Your task to perform on an android device: Go to Android settings Image 0: 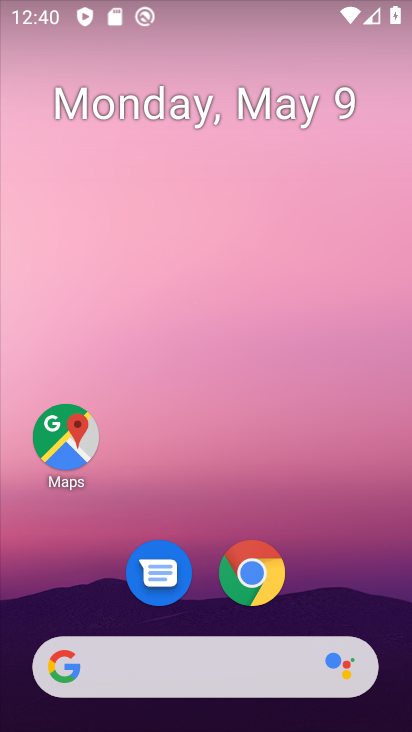
Step 0: drag from (300, 483) to (52, 254)
Your task to perform on an android device: Go to Android settings Image 1: 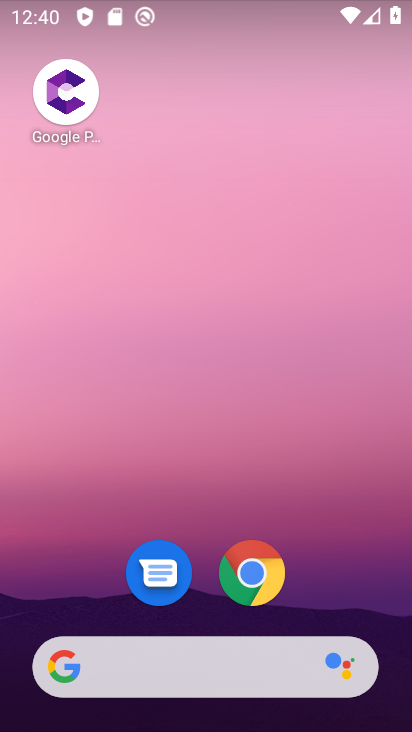
Step 1: drag from (332, 560) to (298, 83)
Your task to perform on an android device: Go to Android settings Image 2: 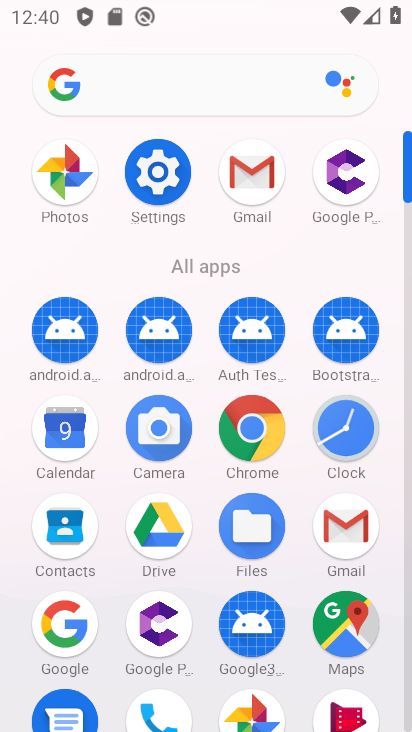
Step 2: click (146, 182)
Your task to perform on an android device: Go to Android settings Image 3: 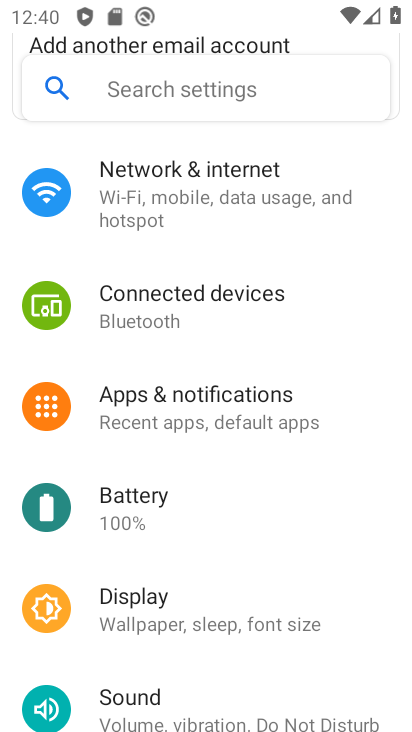
Step 3: drag from (224, 570) to (184, 196)
Your task to perform on an android device: Go to Android settings Image 4: 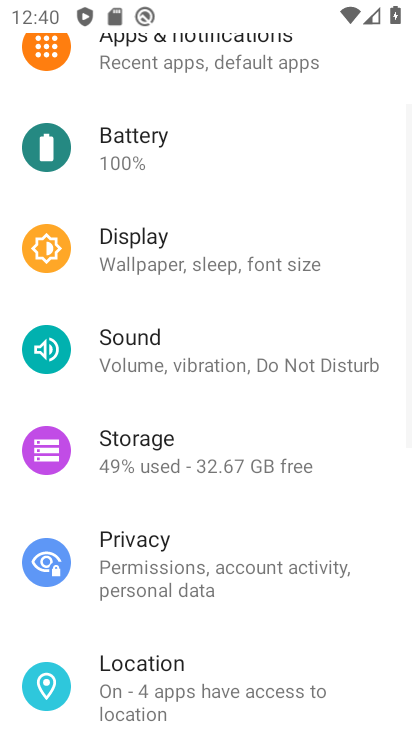
Step 4: drag from (153, 684) to (169, 305)
Your task to perform on an android device: Go to Android settings Image 5: 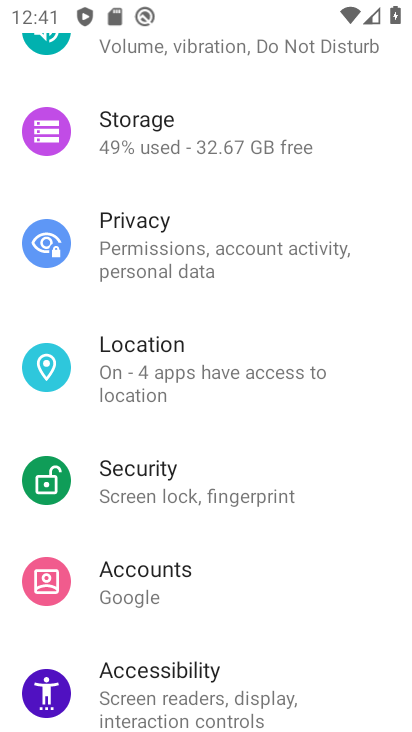
Step 5: drag from (161, 668) to (180, 298)
Your task to perform on an android device: Go to Android settings Image 6: 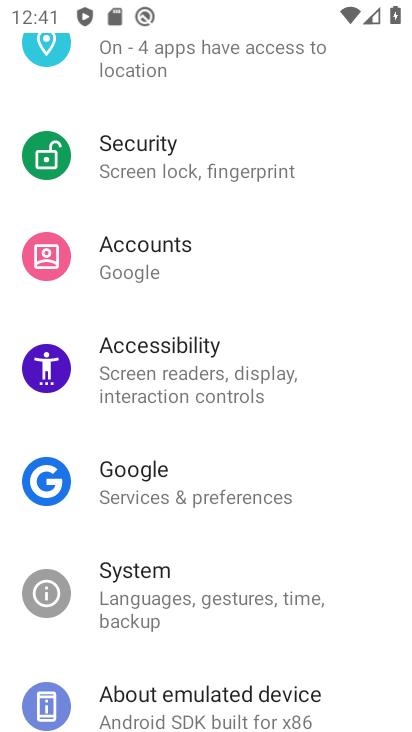
Step 6: click (183, 699)
Your task to perform on an android device: Go to Android settings Image 7: 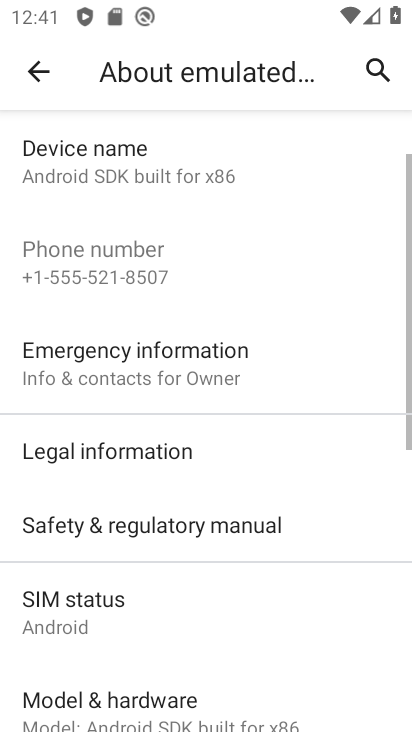
Step 7: drag from (191, 697) to (200, 405)
Your task to perform on an android device: Go to Android settings Image 8: 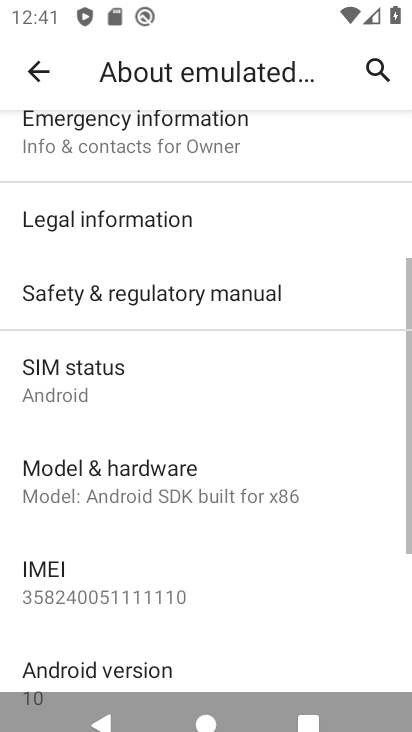
Step 8: drag from (134, 592) to (123, 267)
Your task to perform on an android device: Go to Android settings Image 9: 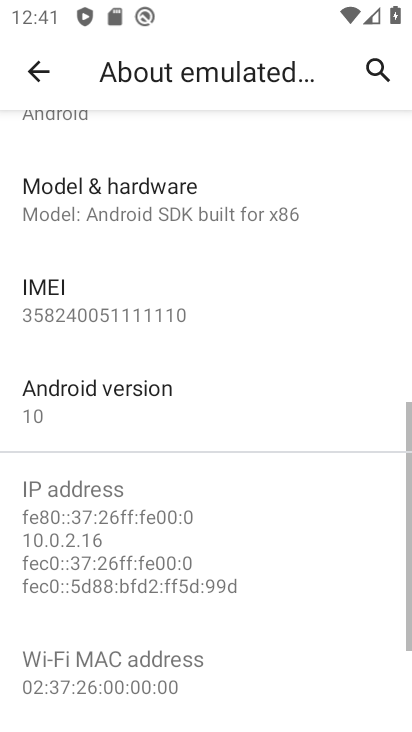
Step 9: click (84, 382)
Your task to perform on an android device: Go to Android settings Image 10: 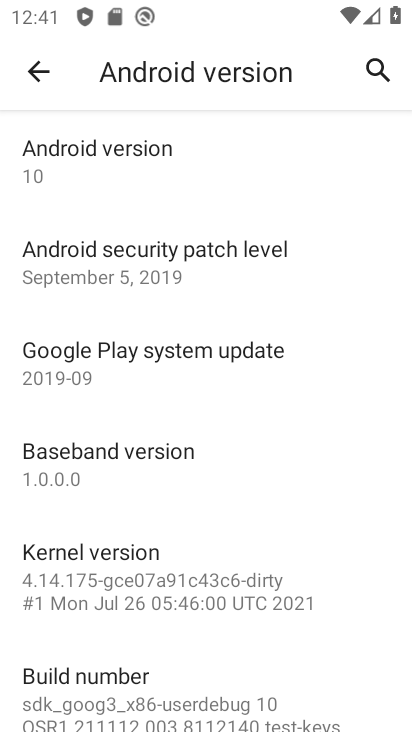
Step 10: task complete